Your task to perform on an android device: toggle sleep mode Image 0: 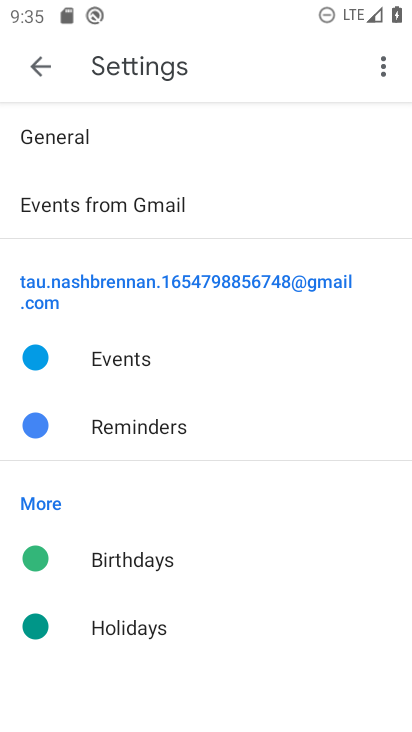
Step 0: press home button
Your task to perform on an android device: toggle sleep mode Image 1: 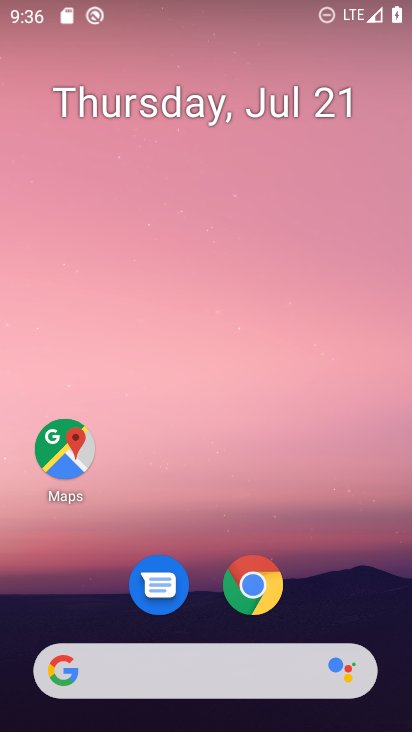
Step 1: drag from (312, 613) to (326, 63)
Your task to perform on an android device: toggle sleep mode Image 2: 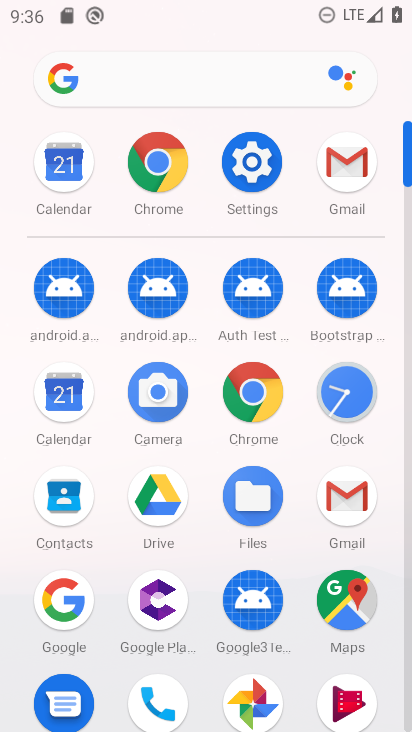
Step 2: click (256, 160)
Your task to perform on an android device: toggle sleep mode Image 3: 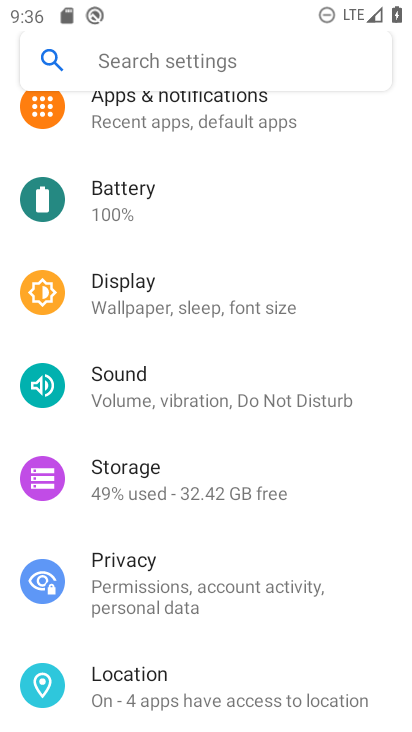
Step 3: click (176, 300)
Your task to perform on an android device: toggle sleep mode Image 4: 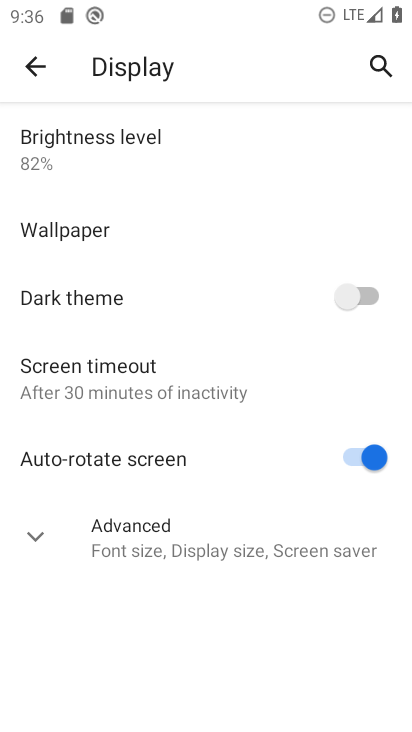
Step 4: click (33, 538)
Your task to perform on an android device: toggle sleep mode Image 5: 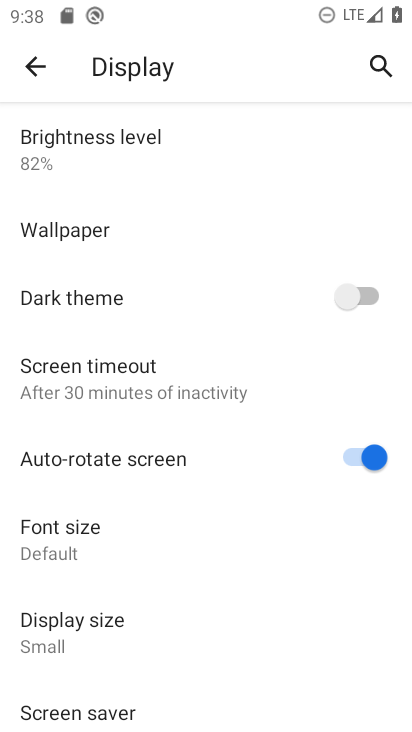
Step 5: task complete